Your task to perform on an android device: What's the weather going to be tomorrow? Image 0: 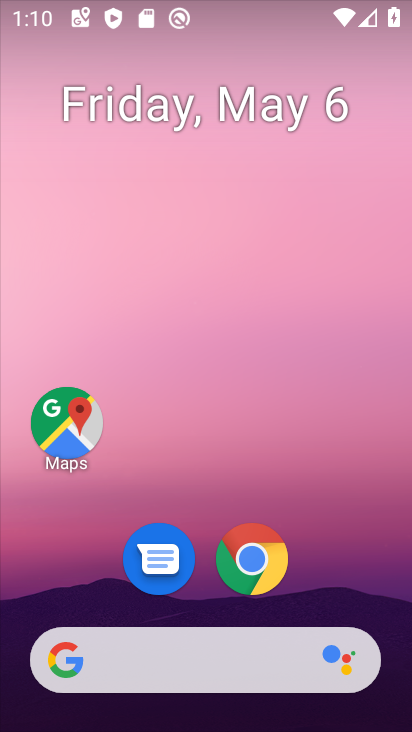
Step 0: click (78, 660)
Your task to perform on an android device: What's the weather going to be tomorrow? Image 1: 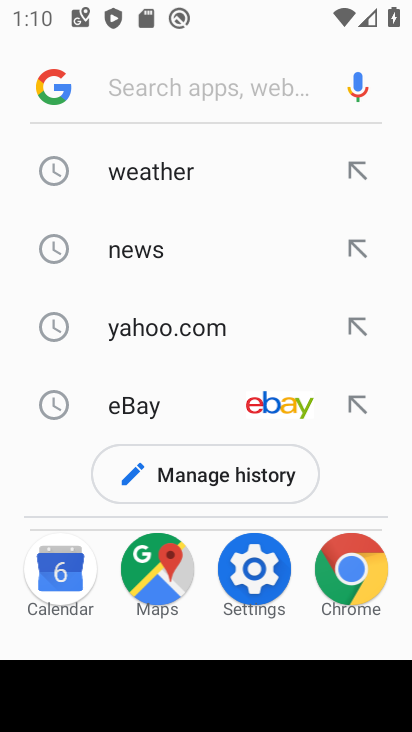
Step 1: click (169, 173)
Your task to perform on an android device: What's the weather going to be tomorrow? Image 2: 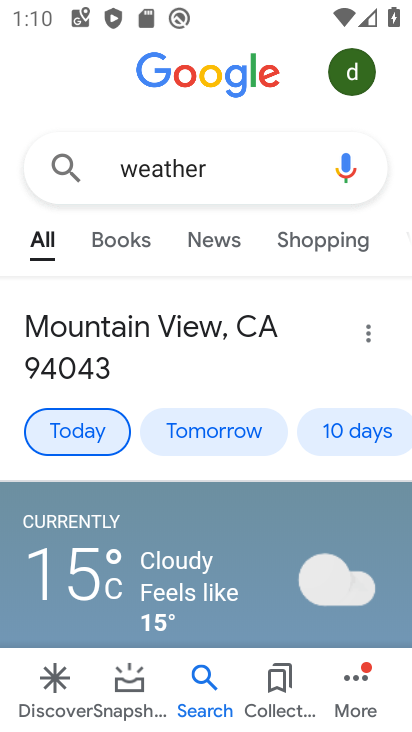
Step 2: click (208, 432)
Your task to perform on an android device: What's the weather going to be tomorrow? Image 3: 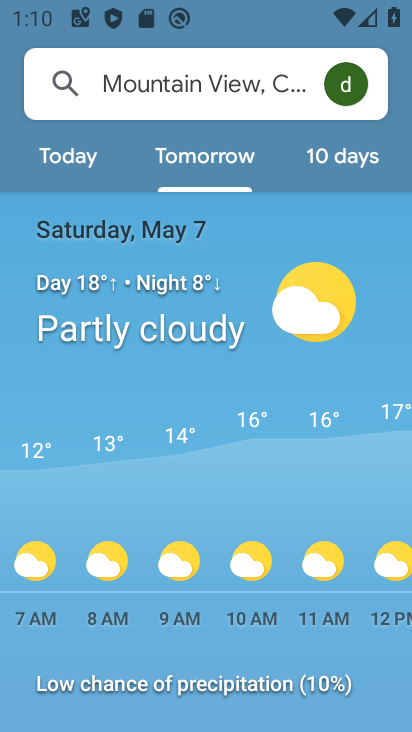
Step 3: task complete